Your task to perform on an android device: turn on data saver in the chrome app Image 0: 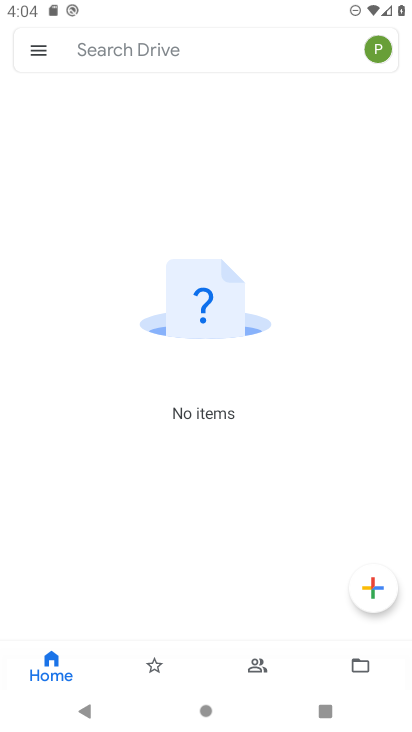
Step 0: press home button
Your task to perform on an android device: turn on data saver in the chrome app Image 1: 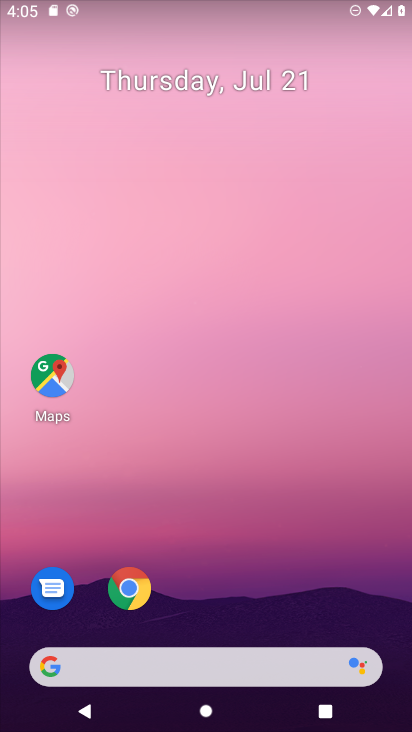
Step 1: drag from (274, 705) to (364, 12)
Your task to perform on an android device: turn on data saver in the chrome app Image 2: 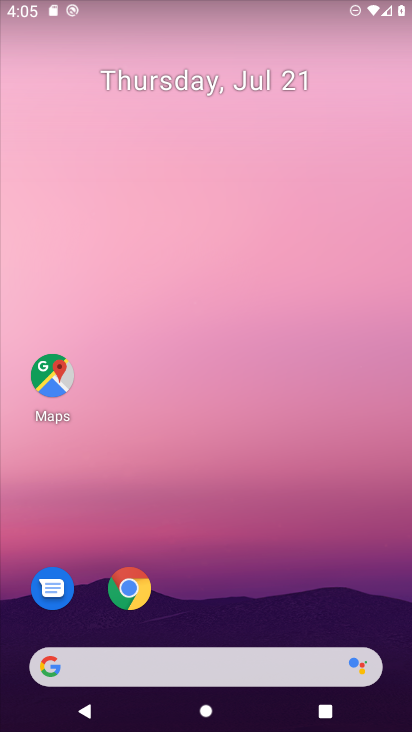
Step 2: drag from (192, 686) to (185, 175)
Your task to perform on an android device: turn on data saver in the chrome app Image 3: 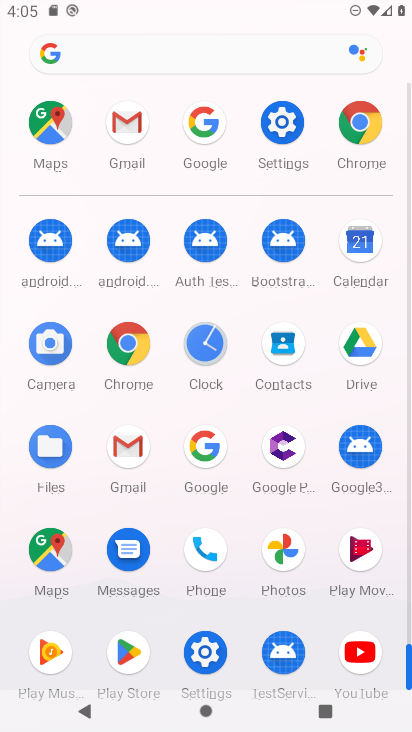
Step 3: click (367, 149)
Your task to perform on an android device: turn on data saver in the chrome app Image 4: 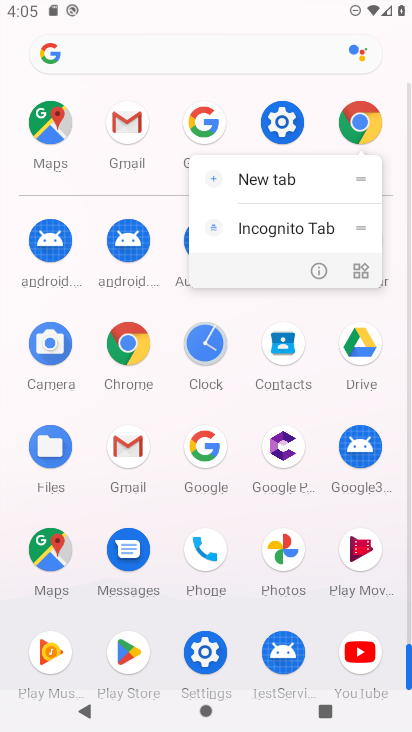
Step 4: click (365, 128)
Your task to perform on an android device: turn on data saver in the chrome app Image 5: 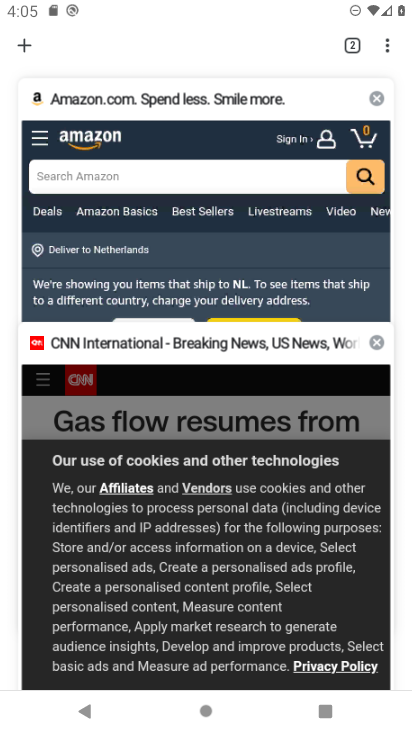
Step 5: click (234, 301)
Your task to perform on an android device: turn on data saver in the chrome app Image 6: 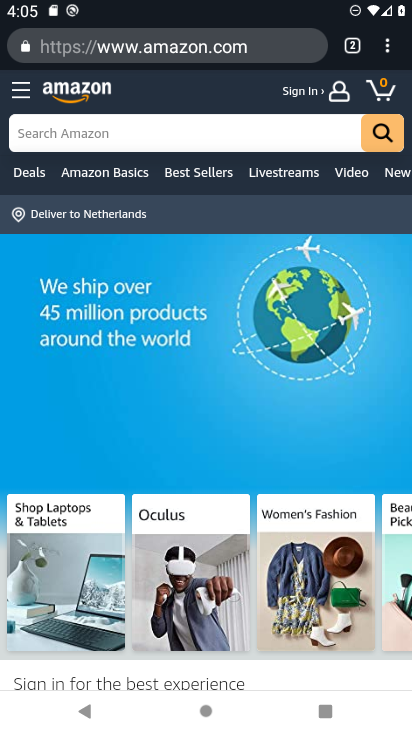
Step 6: click (391, 56)
Your task to perform on an android device: turn on data saver in the chrome app Image 7: 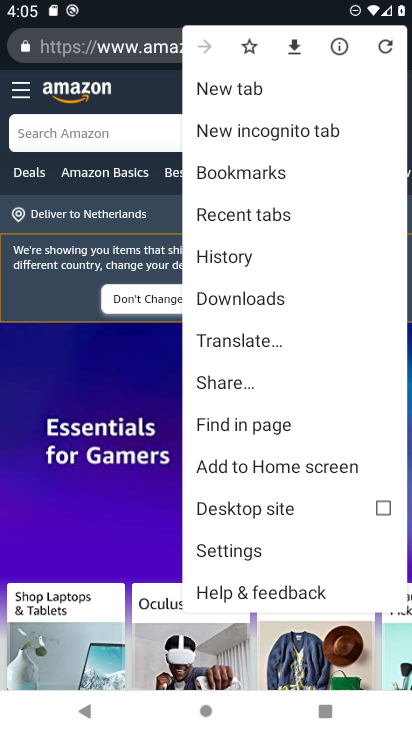
Step 7: click (267, 542)
Your task to perform on an android device: turn on data saver in the chrome app Image 8: 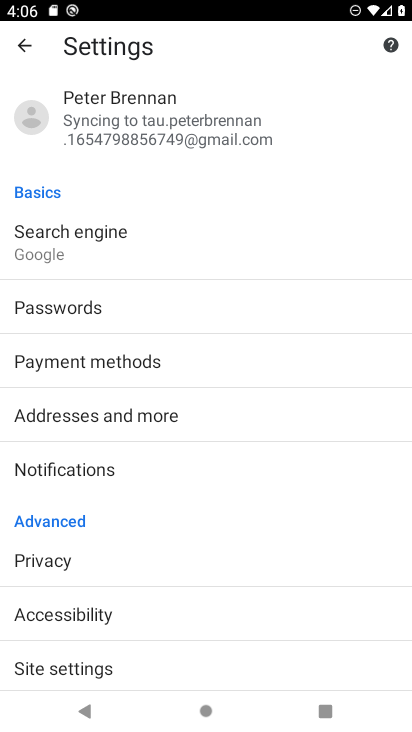
Step 8: drag from (154, 415) to (201, 121)
Your task to perform on an android device: turn on data saver in the chrome app Image 9: 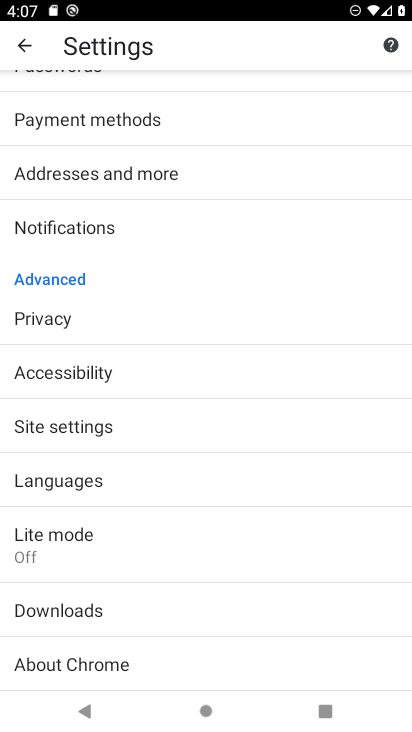
Step 9: click (100, 561)
Your task to perform on an android device: turn on data saver in the chrome app Image 10: 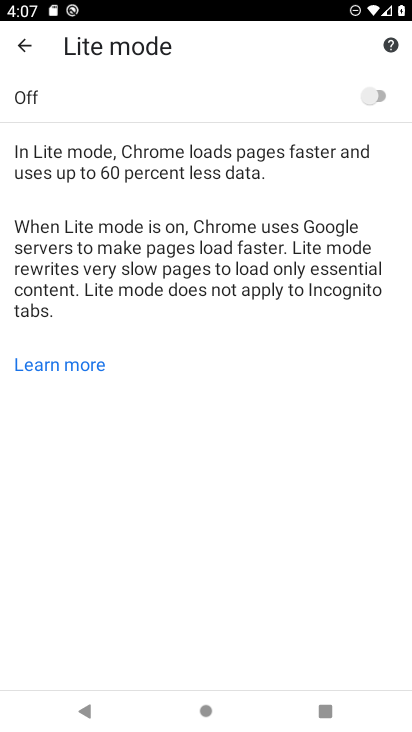
Step 10: click (372, 96)
Your task to perform on an android device: turn on data saver in the chrome app Image 11: 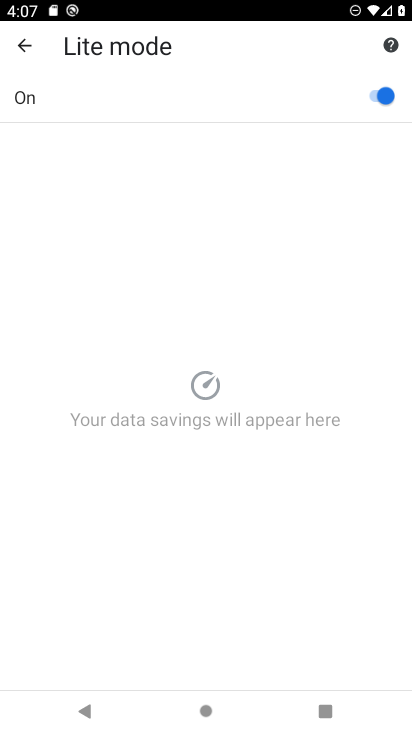
Step 11: task complete